Your task to perform on an android device: Go to calendar. Show me events next week Image 0: 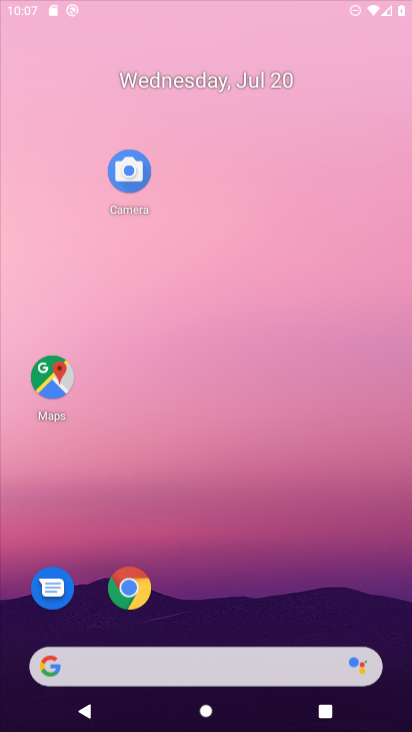
Step 0: press home button
Your task to perform on an android device: Go to calendar. Show me events next week Image 1: 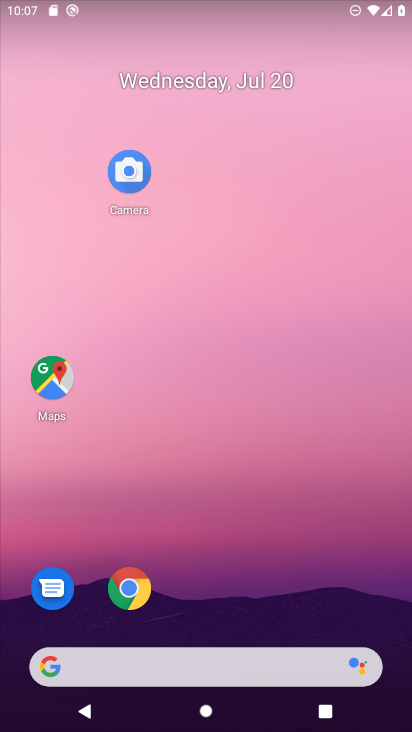
Step 1: drag from (192, 620) to (268, 81)
Your task to perform on an android device: Go to calendar. Show me events next week Image 2: 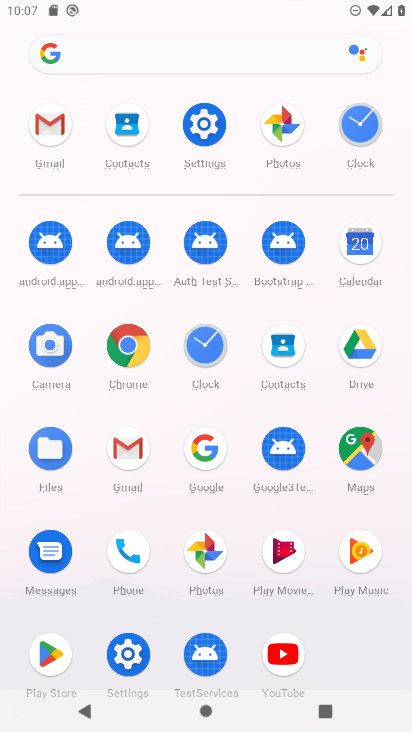
Step 2: click (366, 245)
Your task to perform on an android device: Go to calendar. Show me events next week Image 3: 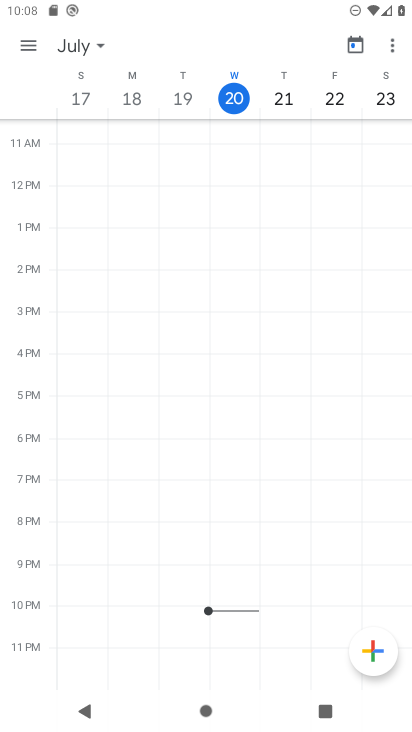
Step 3: click (95, 45)
Your task to perform on an android device: Go to calendar. Show me events next week Image 4: 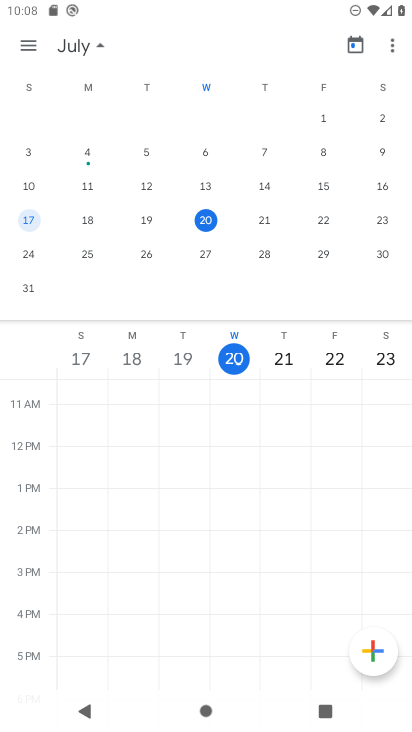
Step 4: click (33, 42)
Your task to perform on an android device: Go to calendar. Show me events next week Image 5: 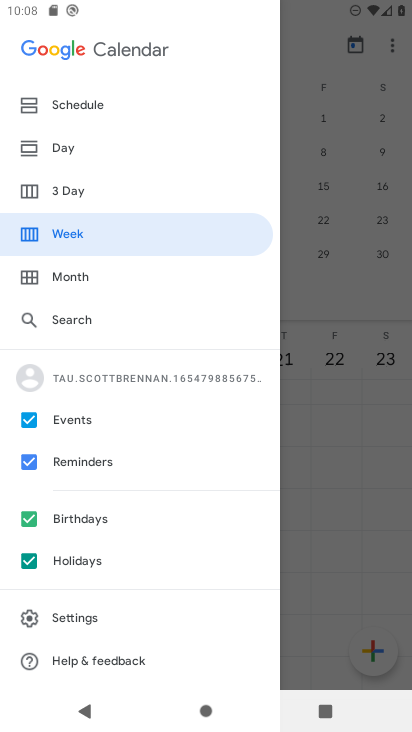
Step 5: click (77, 240)
Your task to perform on an android device: Go to calendar. Show me events next week Image 6: 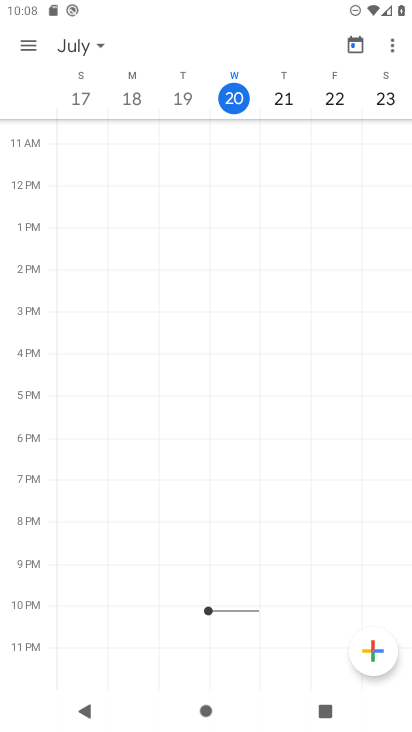
Step 6: task complete